Your task to perform on an android device: Open Google Image 0: 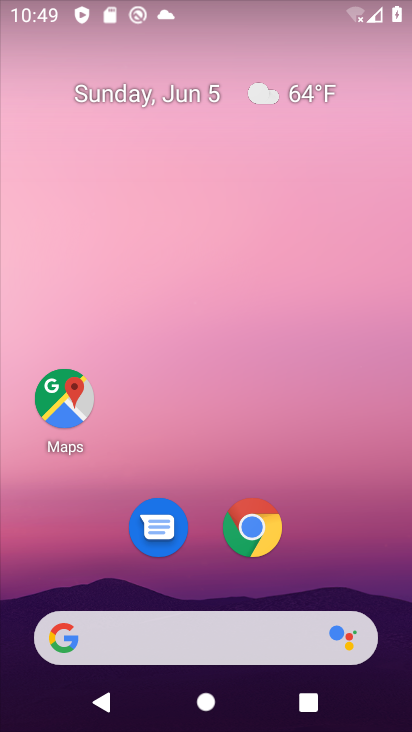
Step 0: drag from (341, 554) to (354, 44)
Your task to perform on an android device: Open Google Image 1: 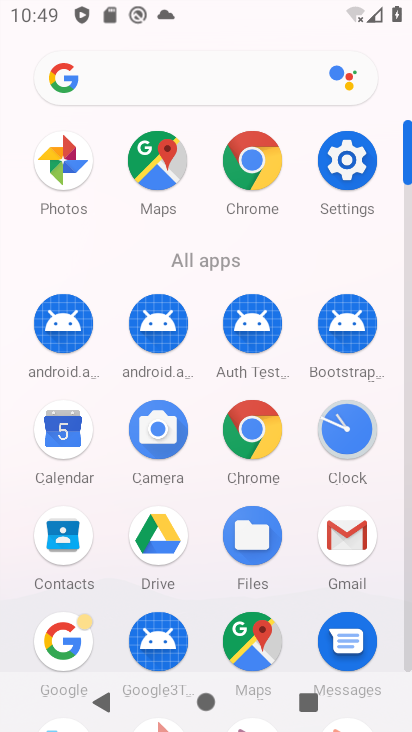
Step 1: click (60, 648)
Your task to perform on an android device: Open Google Image 2: 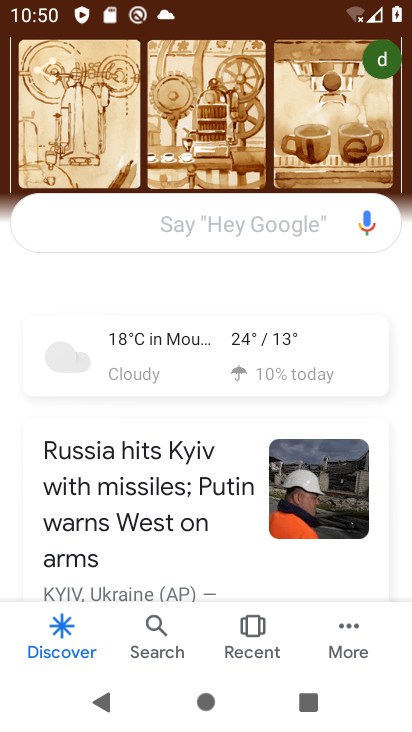
Step 2: task complete